Your task to perform on an android device: open app "Lyft - Rideshare, Bikes, Scooters & Transit" (install if not already installed), go to login, and select forgot password Image 0: 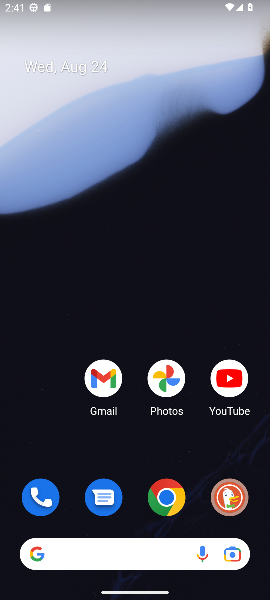
Step 0: drag from (126, 542) to (138, 233)
Your task to perform on an android device: open app "Lyft - Rideshare, Bikes, Scooters & Transit" (install if not already installed), go to login, and select forgot password Image 1: 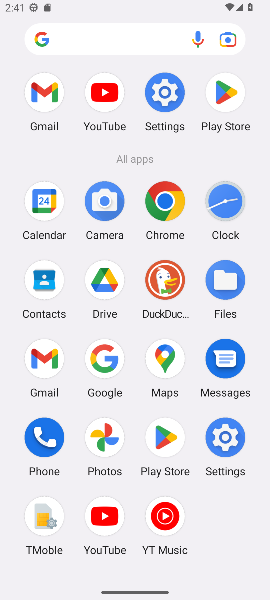
Step 1: click (226, 99)
Your task to perform on an android device: open app "Lyft - Rideshare, Bikes, Scooters & Transit" (install if not already installed), go to login, and select forgot password Image 2: 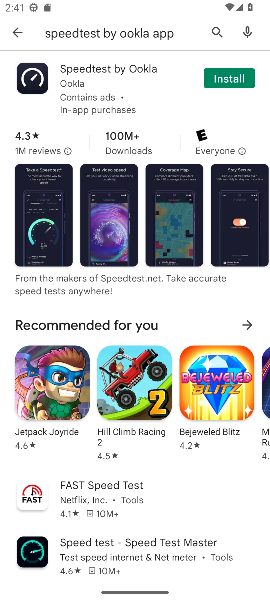
Step 2: press back button
Your task to perform on an android device: open app "Lyft - Rideshare, Bikes, Scooters & Transit" (install if not already installed), go to login, and select forgot password Image 3: 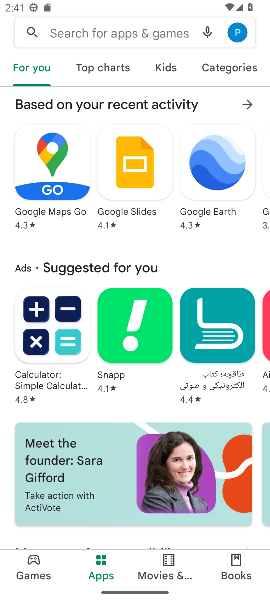
Step 3: click (134, 27)
Your task to perform on an android device: open app "Lyft - Rideshare, Bikes, Scooters & Transit" (install if not already installed), go to login, and select forgot password Image 4: 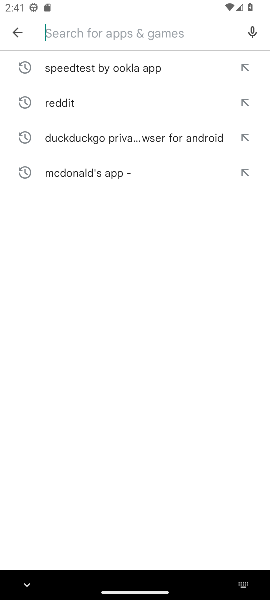
Step 4: type "Lyft - Rideshare, Bikes, Scooters & Transit"
Your task to perform on an android device: open app "Lyft - Rideshare, Bikes, Scooters & Transit" (install if not already installed), go to login, and select forgot password Image 5: 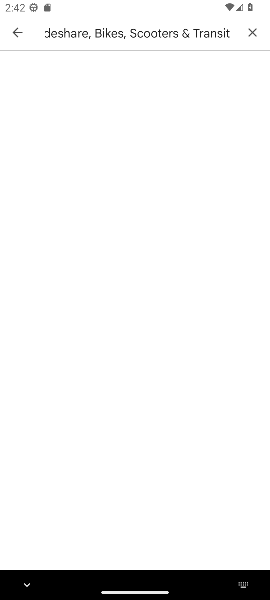
Step 5: task complete